Your task to perform on an android device: show emergency info Image 0: 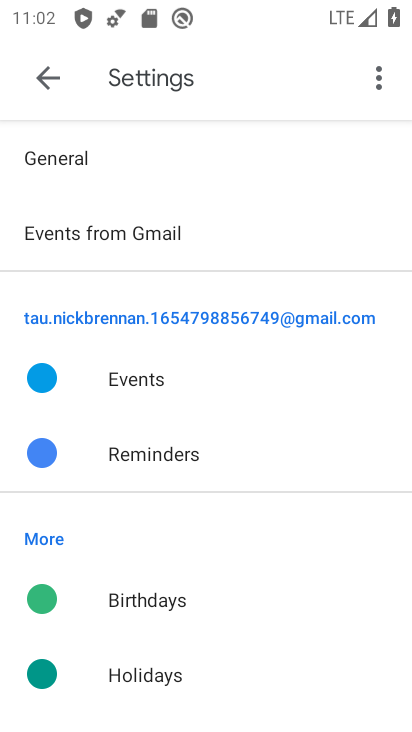
Step 0: press home button
Your task to perform on an android device: show emergency info Image 1: 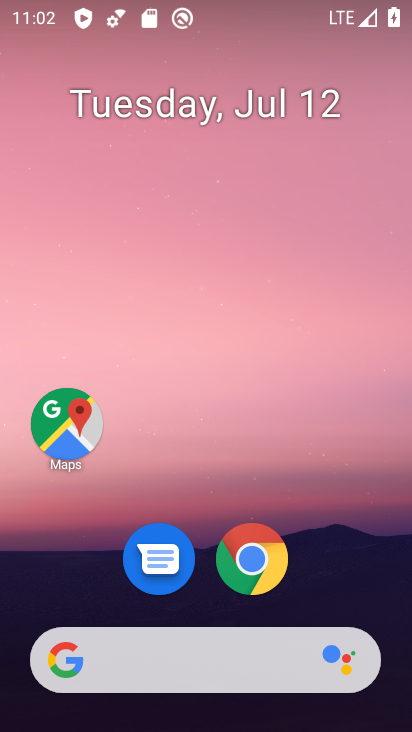
Step 1: drag from (253, 703) to (243, 214)
Your task to perform on an android device: show emergency info Image 2: 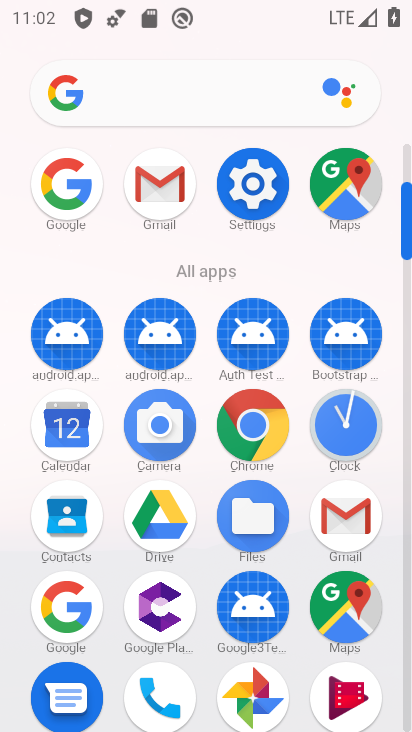
Step 2: click (239, 205)
Your task to perform on an android device: show emergency info Image 3: 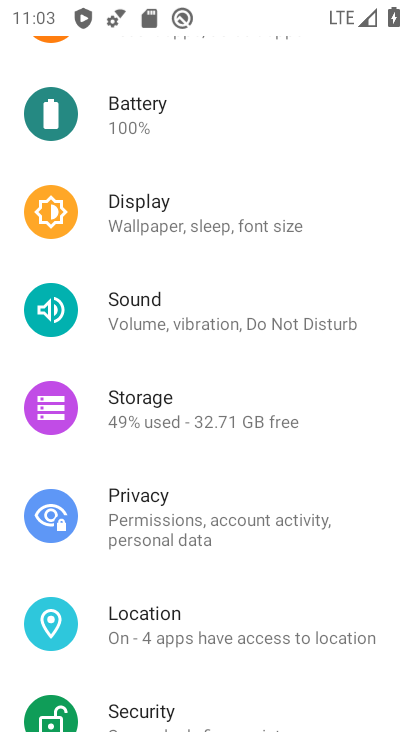
Step 3: drag from (186, 541) to (180, 364)
Your task to perform on an android device: show emergency info Image 4: 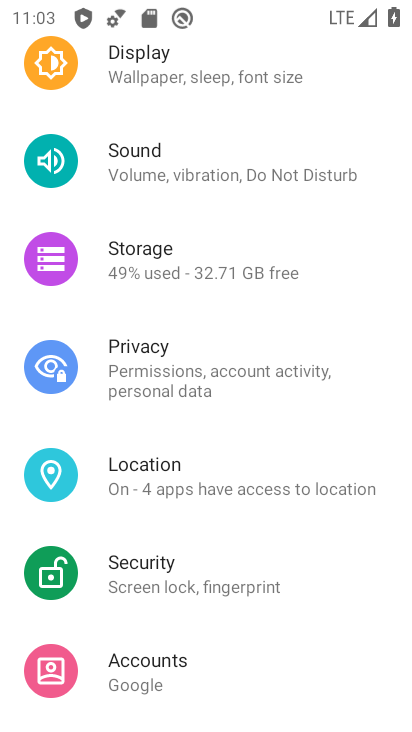
Step 4: drag from (165, 536) to (166, 288)
Your task to perform on an android device: show emergency info Image 5: 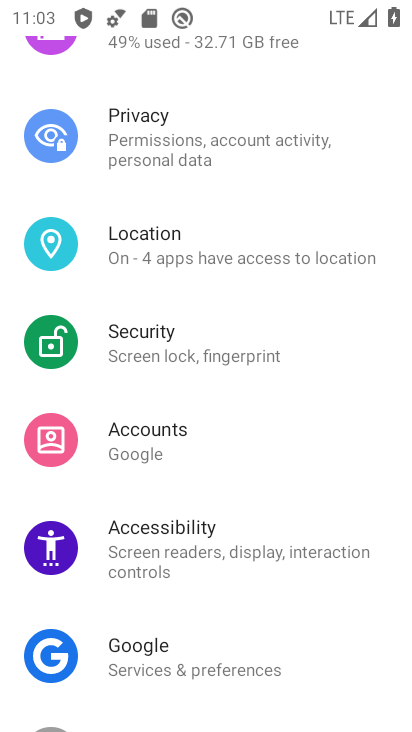
Step 5: drag from (179, 536) to (150, 362)
Your task to perform on an android device: show emergency info Image 6: 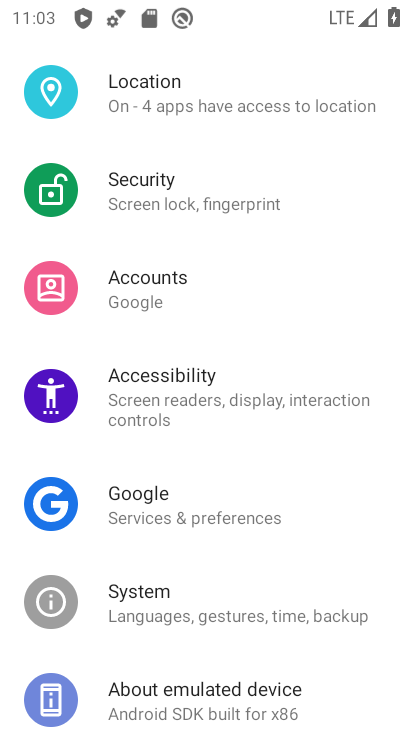
Step 6: drag from (185, 660) to (171, 417)
Your task to perform on an android device: show emergency info Image 7: 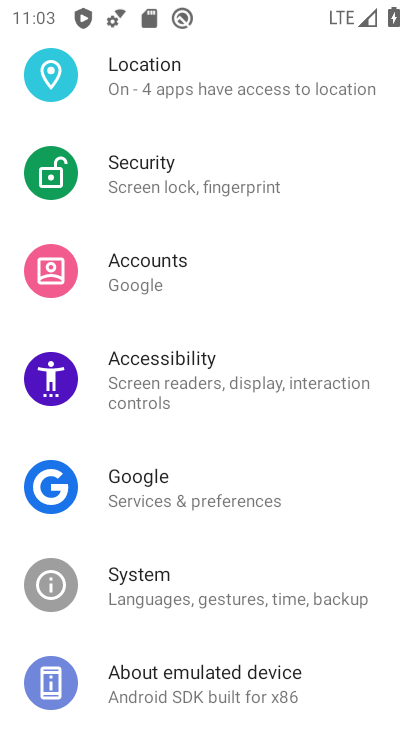
Step 7: click (149, 683)
Your task to perform on an android device: show emergency info Image 8: 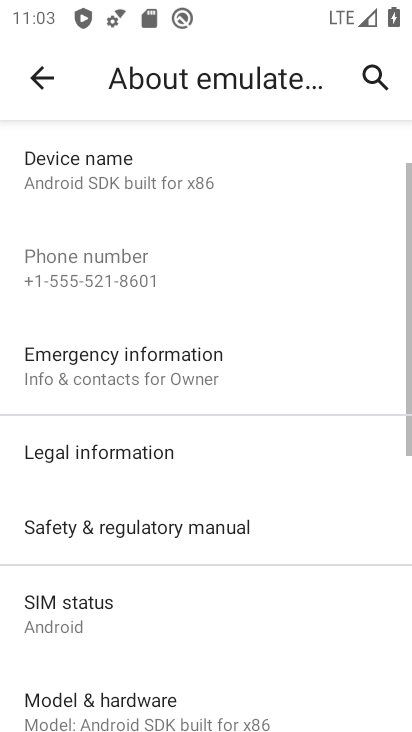
Step 8: click (128, 368)
Your task to perform on an android device: show emergency info Image 9: 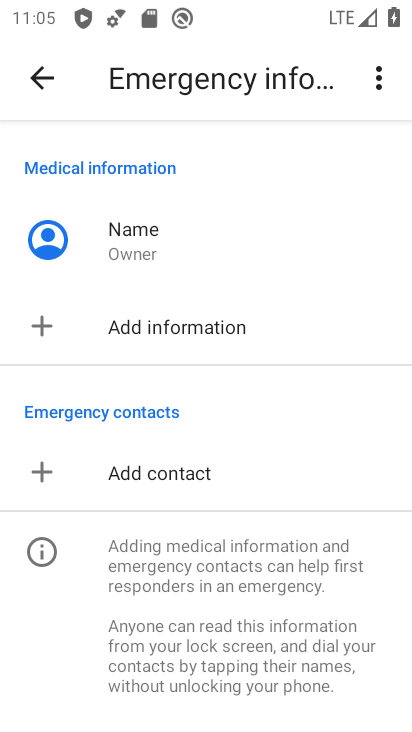
Step 9: task complete